Your task to perform on an android device: open app "Paramount+ | Peak Streaming" Image 0: 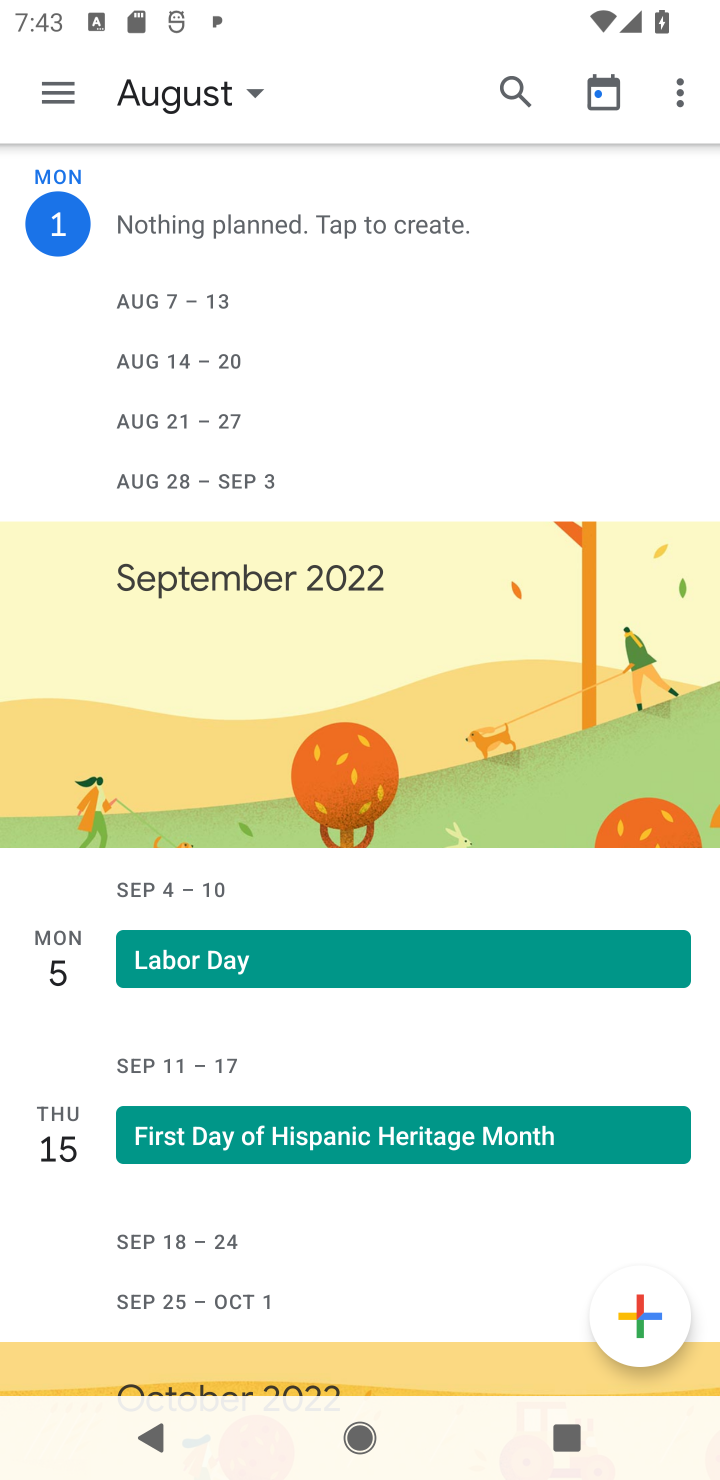
Step 0: press home button
Your task to perform on an android device: open app "Paramount+ | Peak Streaming" Image 1: 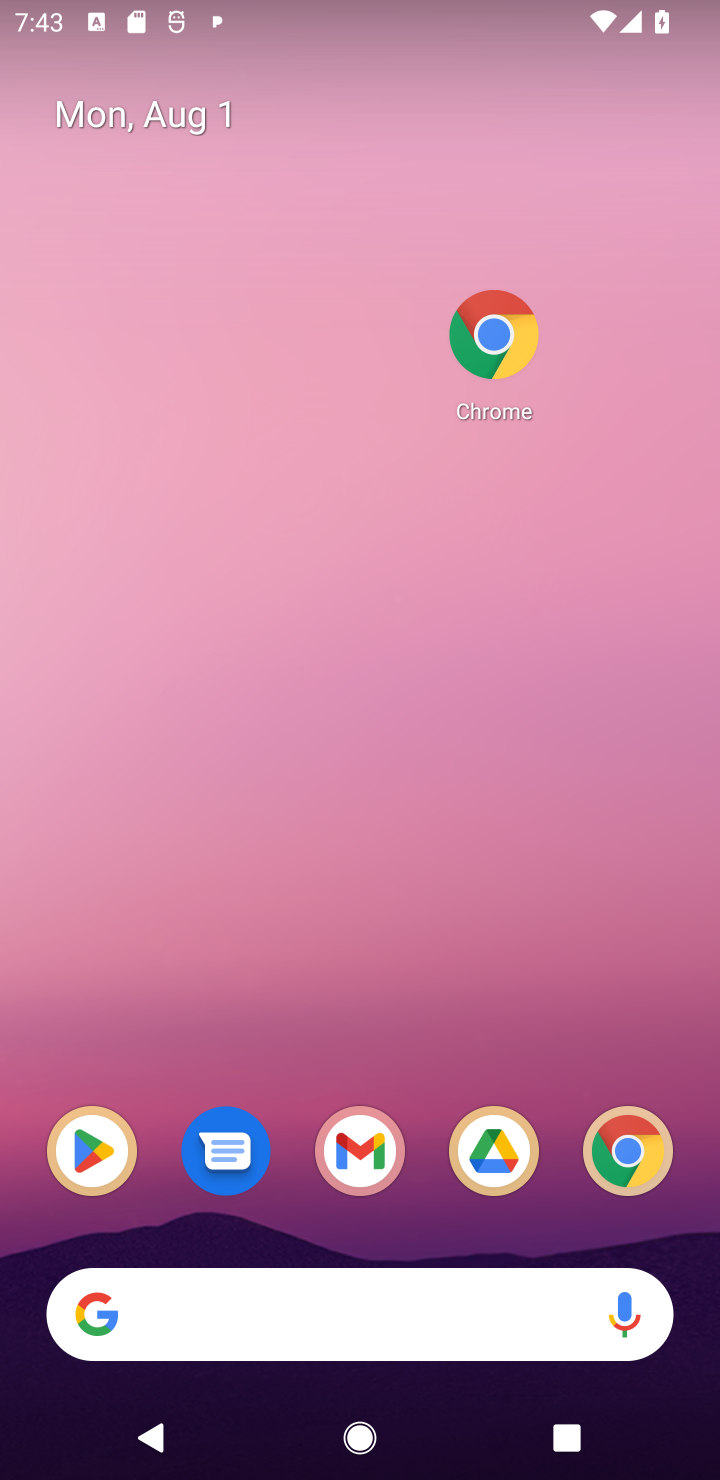
Step 1: click (86, 1150)
Your task to perform on an android device: open app "Paramount+ | Peak Streaming" Image 2: 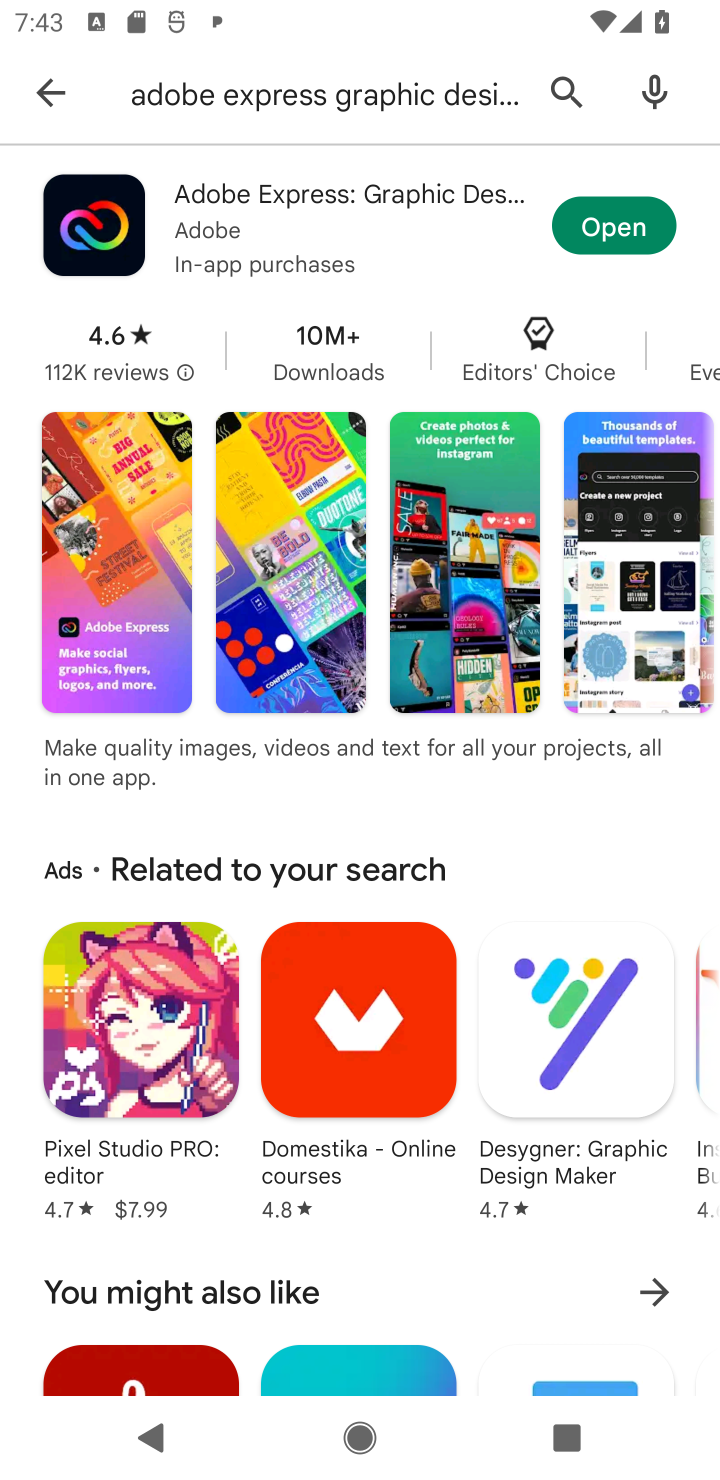
Step 2: click (565, 90)
Your task to perform on an android device: open app "Paramount+ | Peak Streaming" Image 3: 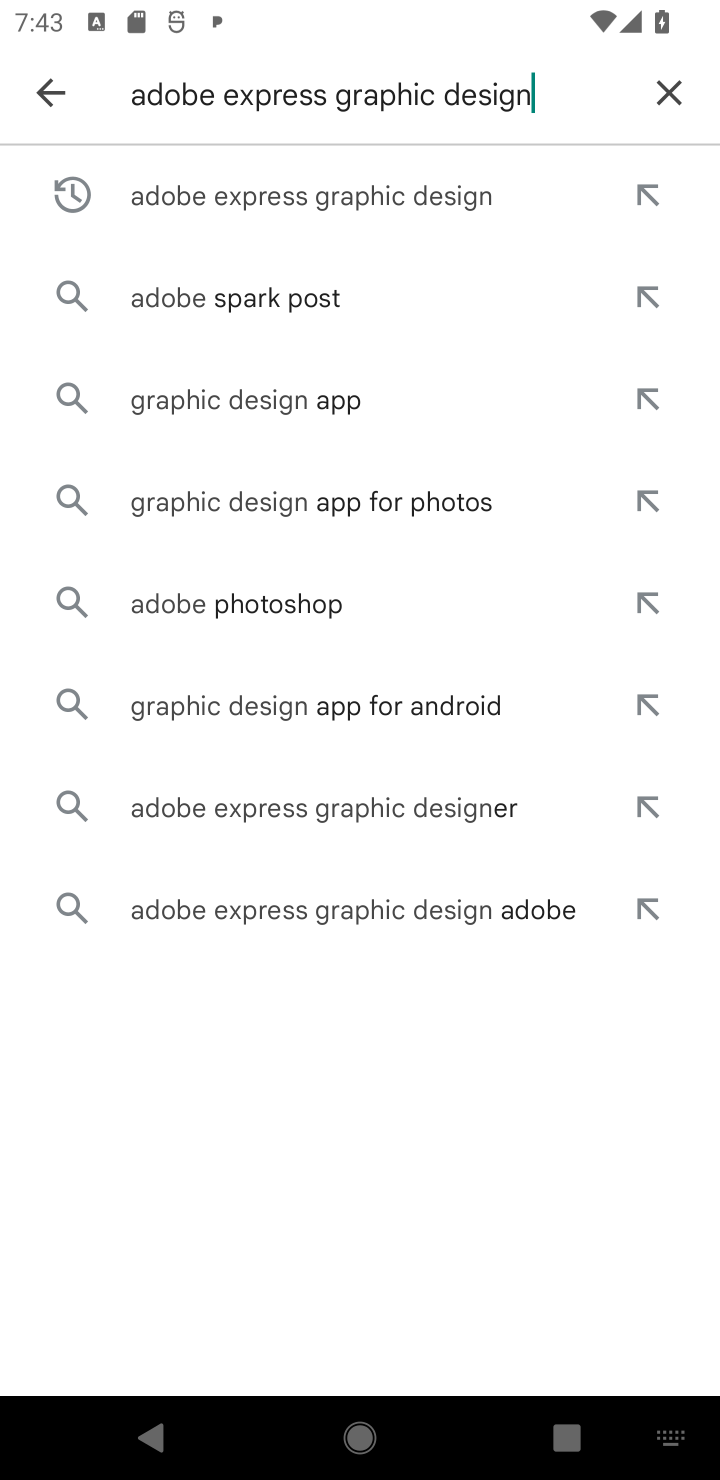
Step 3: click (642, 89)
Your task to perform on an android device: open app "Paramount+ | Peak Streaming" Image 4: 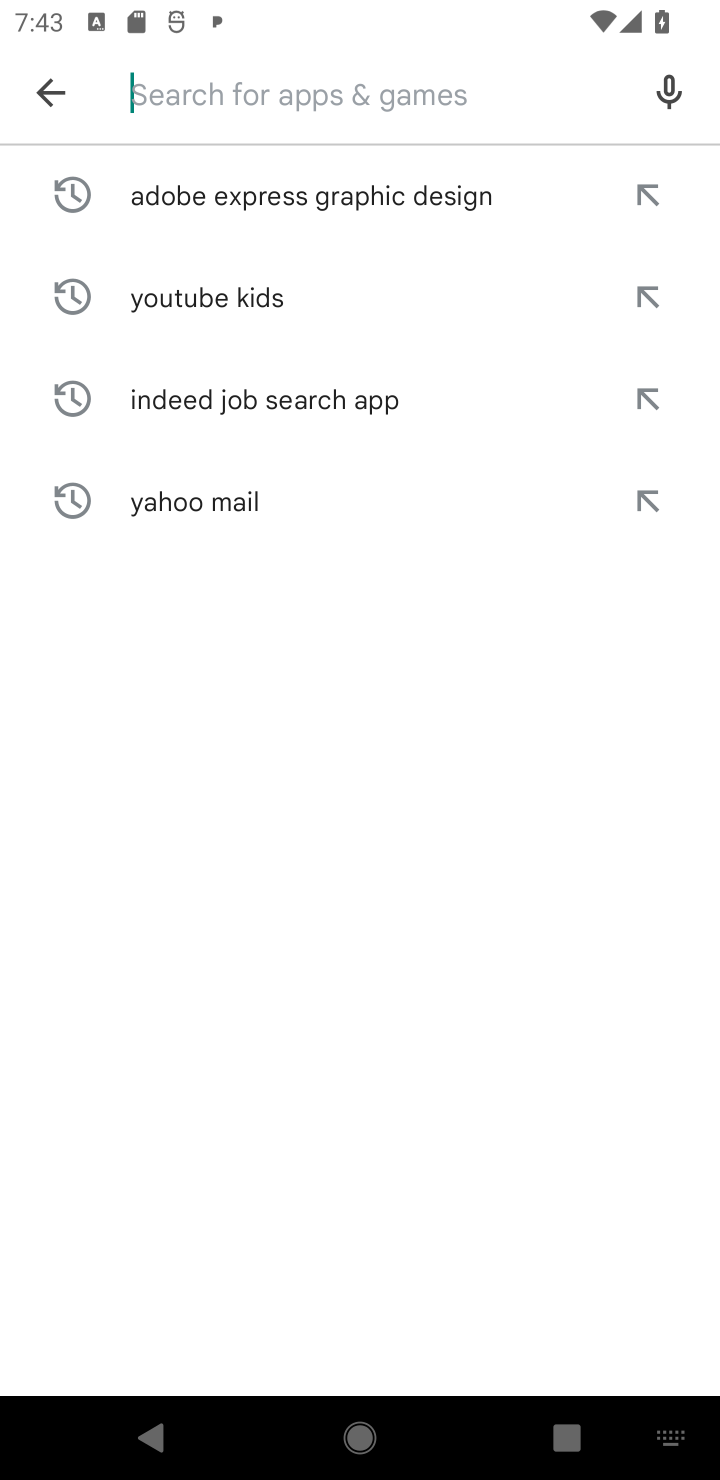
Step 4: type "Paramount+ | Peak Streaming"
Your task to perform on an android device: open app "Paramount+ | Peak Streaming" Image 5: 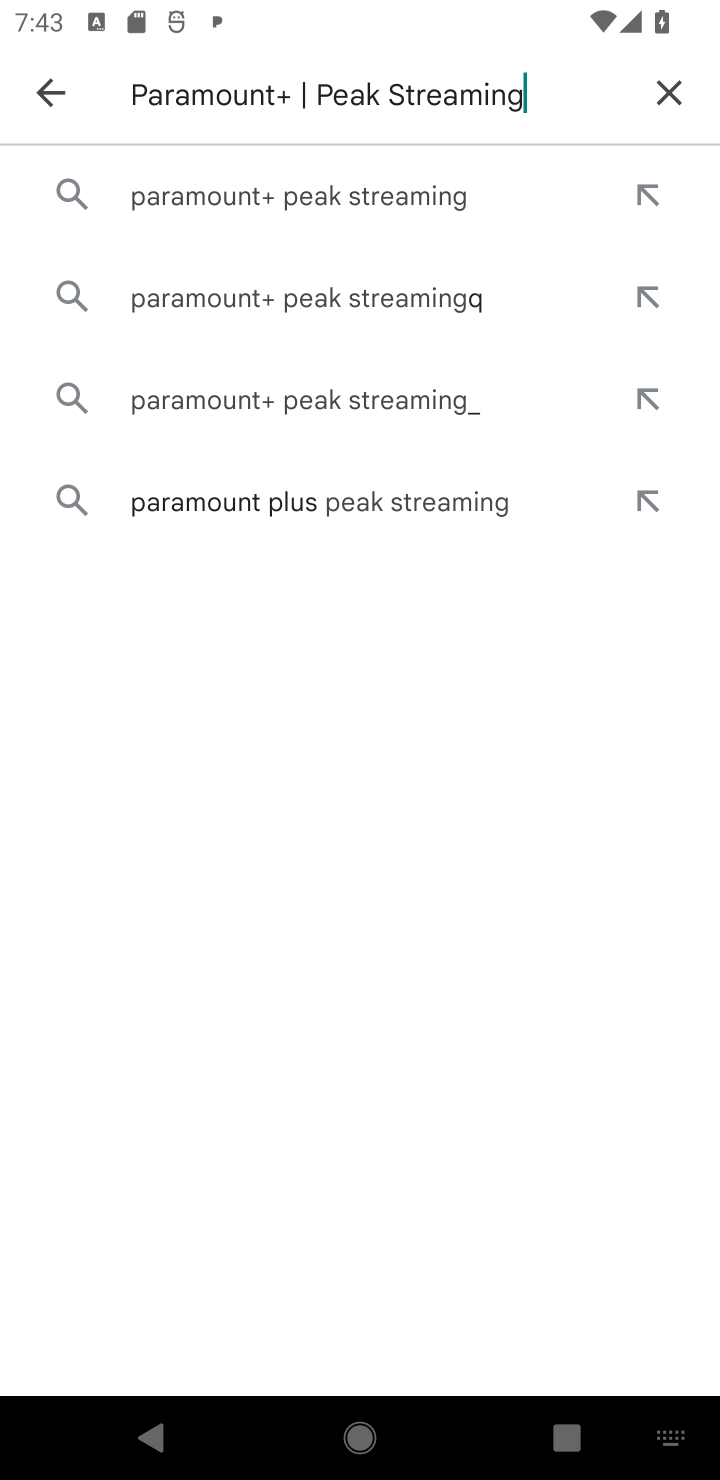
Step 5: click (264, 214)
Your task to perform on an android device: open app "Paramount+ | Peak Streaming" Image 6: 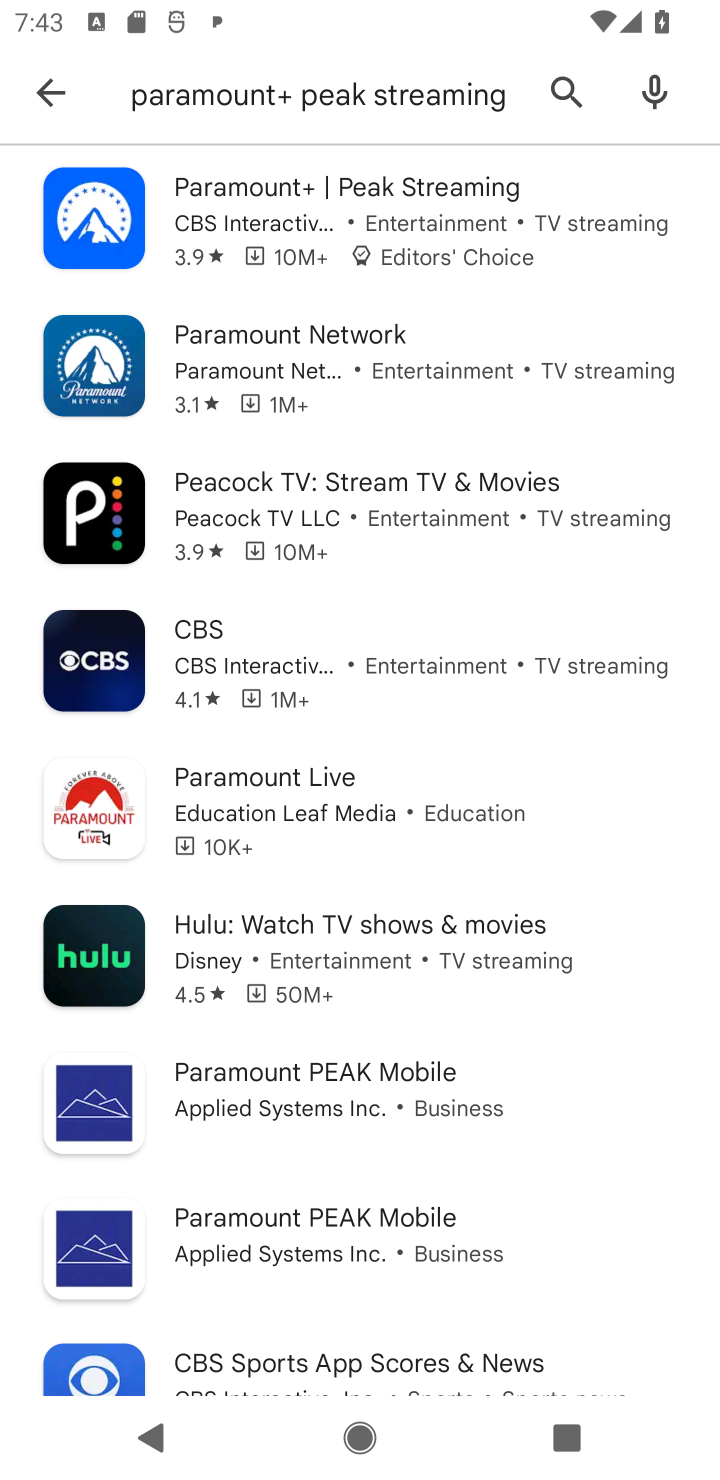
Step 6: click (264, 214)
Your task to perform on an android device: open app "Paramount+ | Peak Streaming" Image 7: 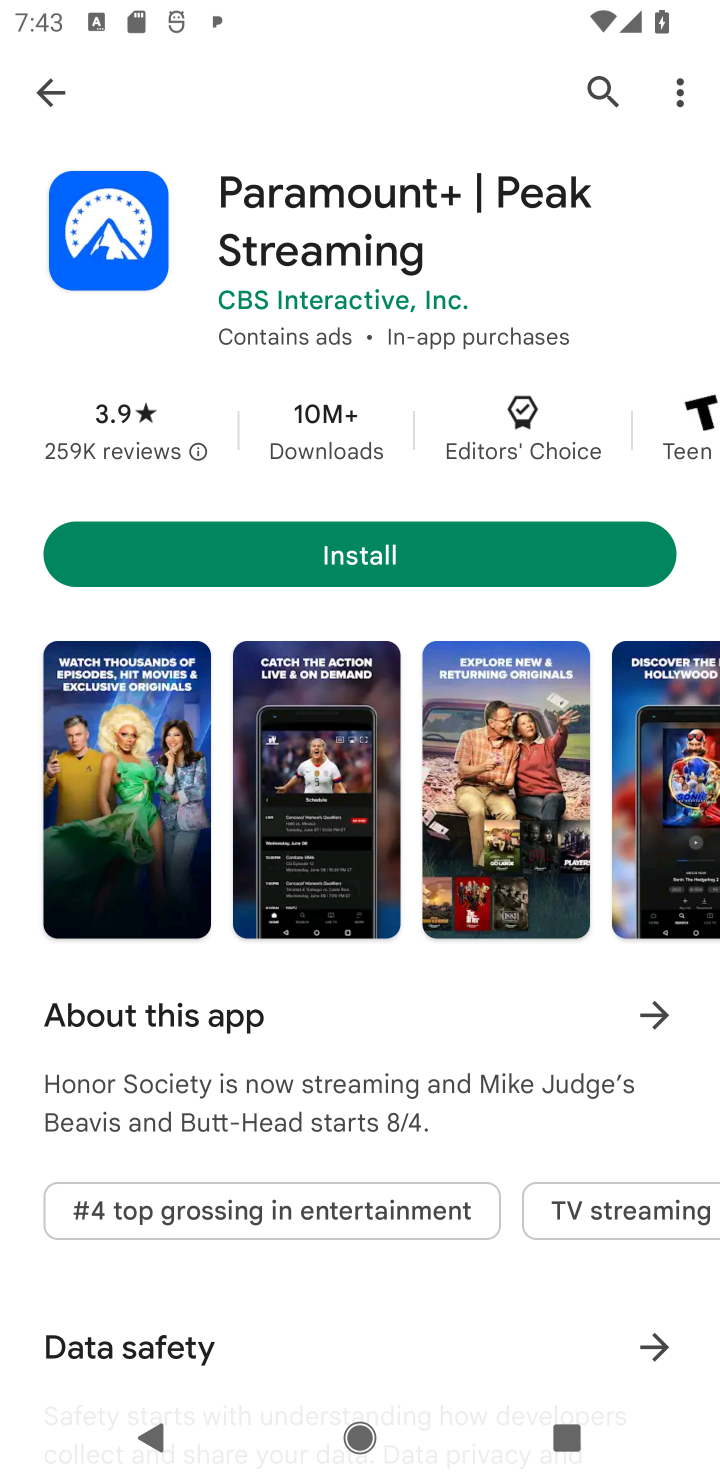
Step 7: task complete